Your task to perform on an android device: Open Google Chrome Image 0: 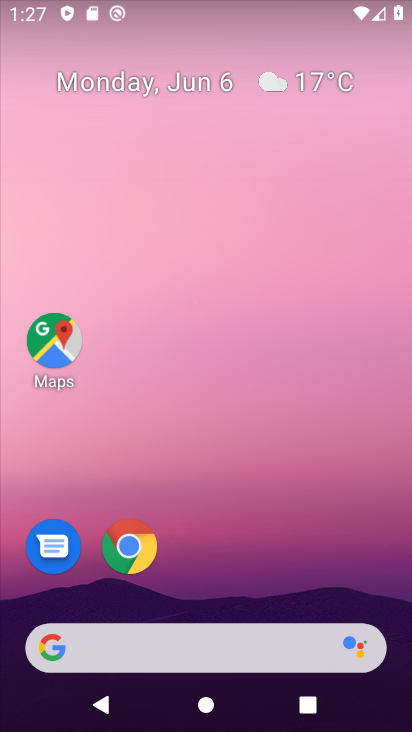
Step 0: click (130, 560)
Your task to perform on an android device: Open Google Chrome Image 1: 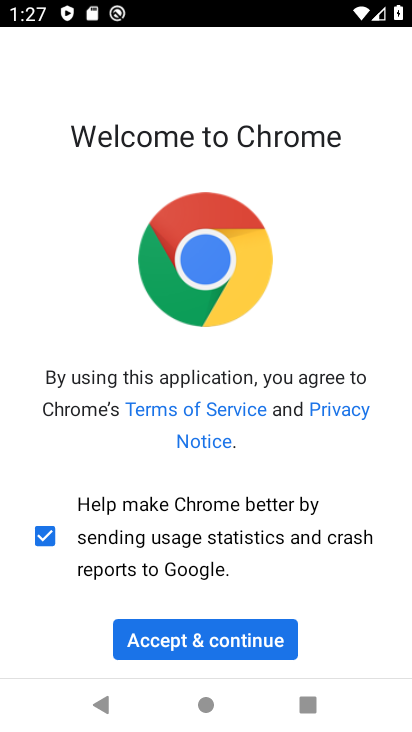
Step 1: click (164, 638)
Your task to perform on an android device: Open Google Chrome Image 2: 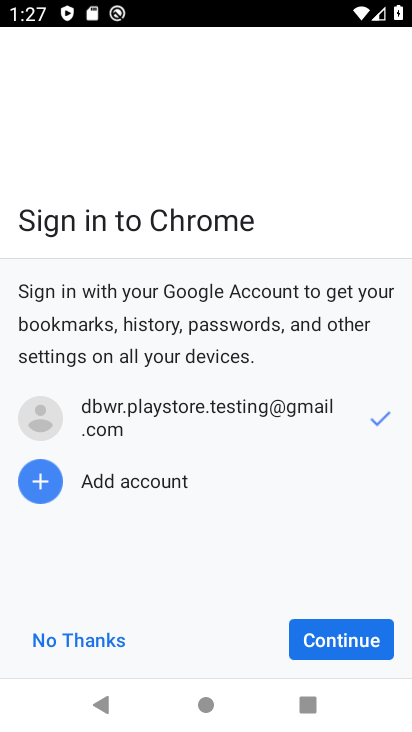
Step 2: click (319, 641)
Your task to perform on an android device: Open Google Chrome Image 3: 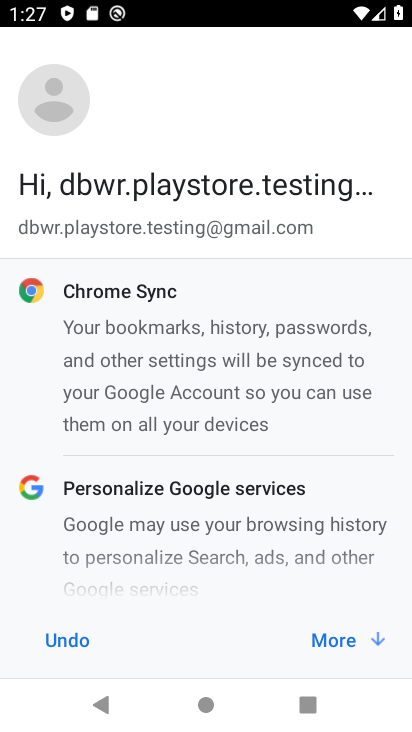
Step 3: click (361, 637)
Your task to perform on an android device: Open Google Chrome Image 4: 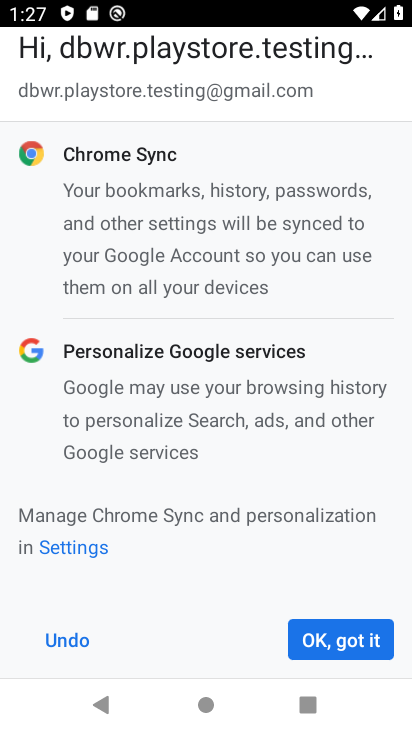
Step 4: click (361, 637)
Your task to perform on an android device: Open Google Chrome Image 5: 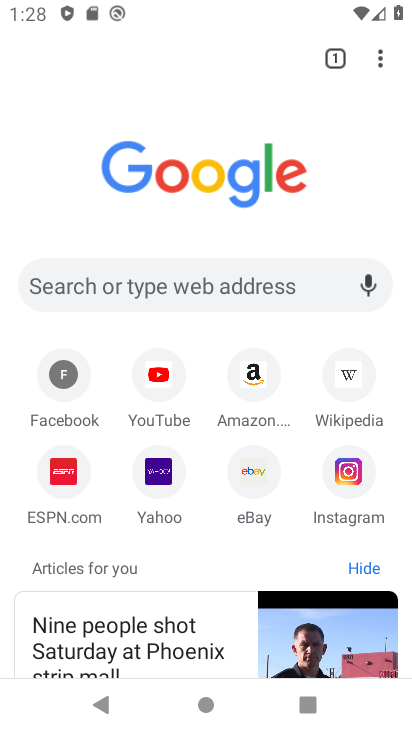
Step 5: task complete